Your task to perform on an android device: uninstall "Firefox Browser" Image 0: 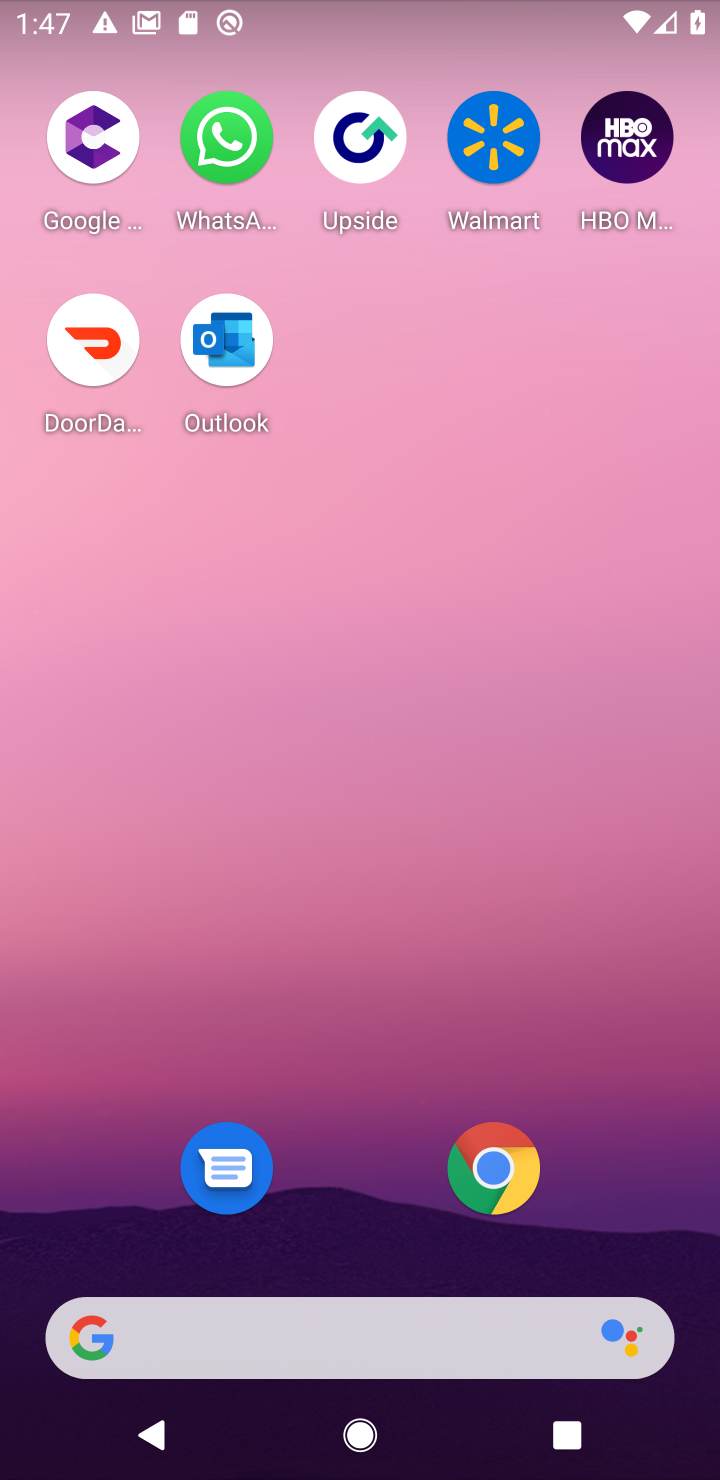
Step 0: drag from (243, 1322) to (322, 202)
Your task to perform on an android device: uninstall "Firefox Browser" Image 1: 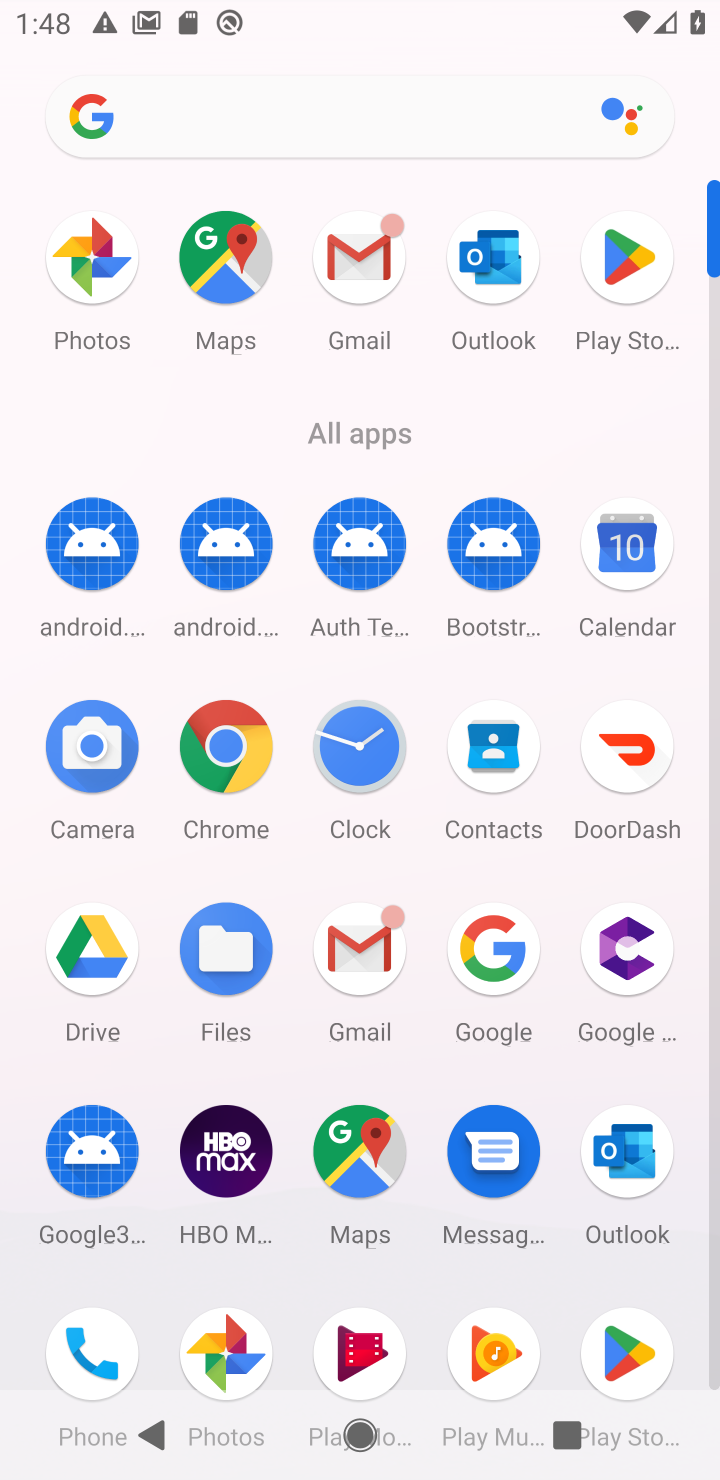
Step 1: click (626, 271)
Your task to perform on an android device: uninstall "Firefox Browser" Image 2: 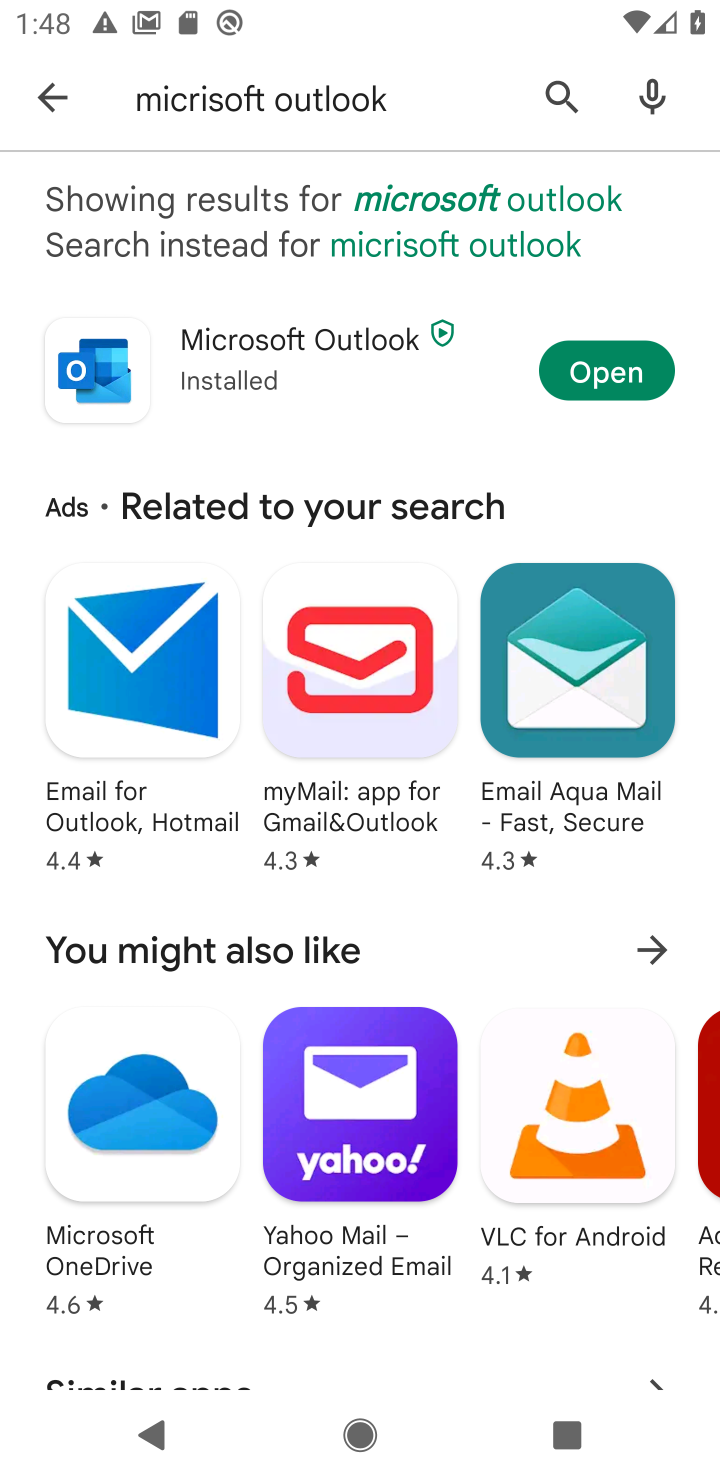
Step 2: press back button
Your task to perform on an android device: uninstall "Firefox Browser" Image 3: 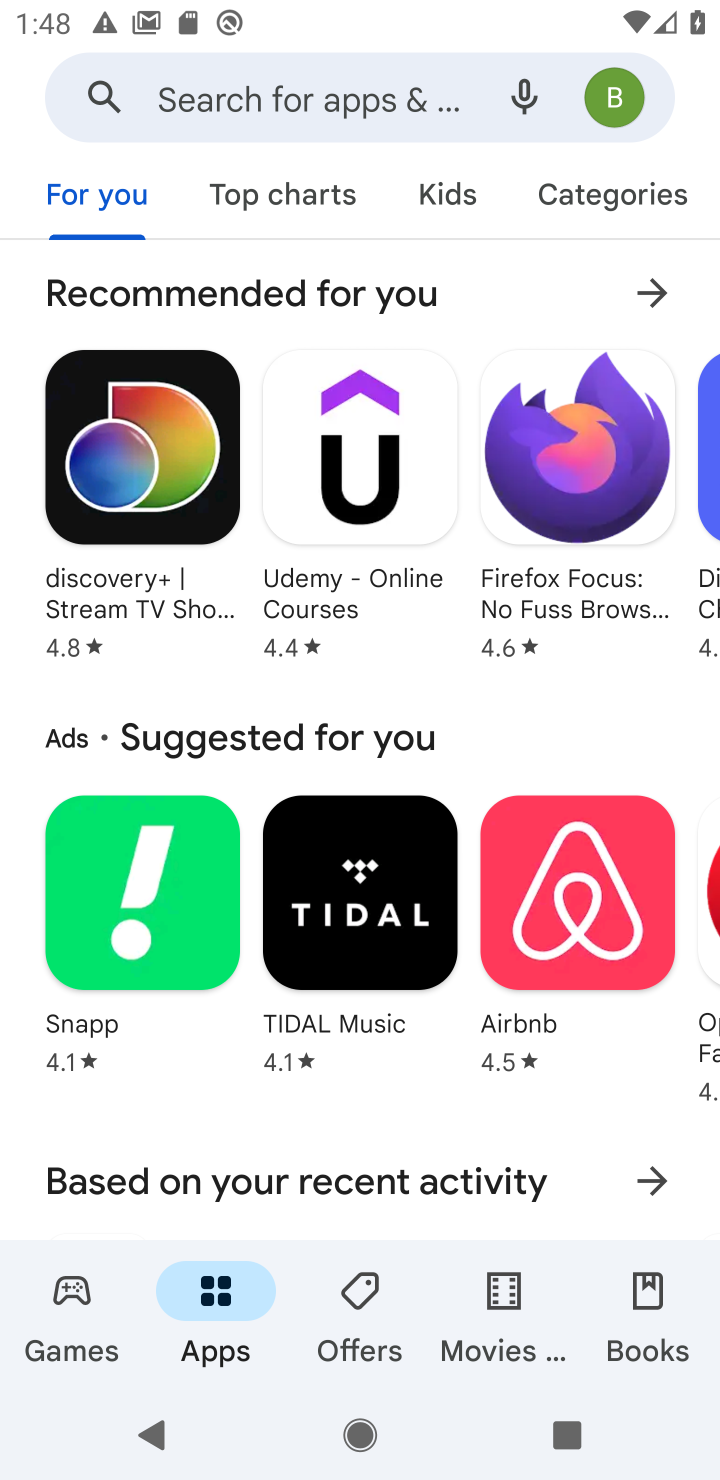
Step 3: click (260, 104)
Your task to perform on an android device: uninstall "Firefox Browser" Image 4: 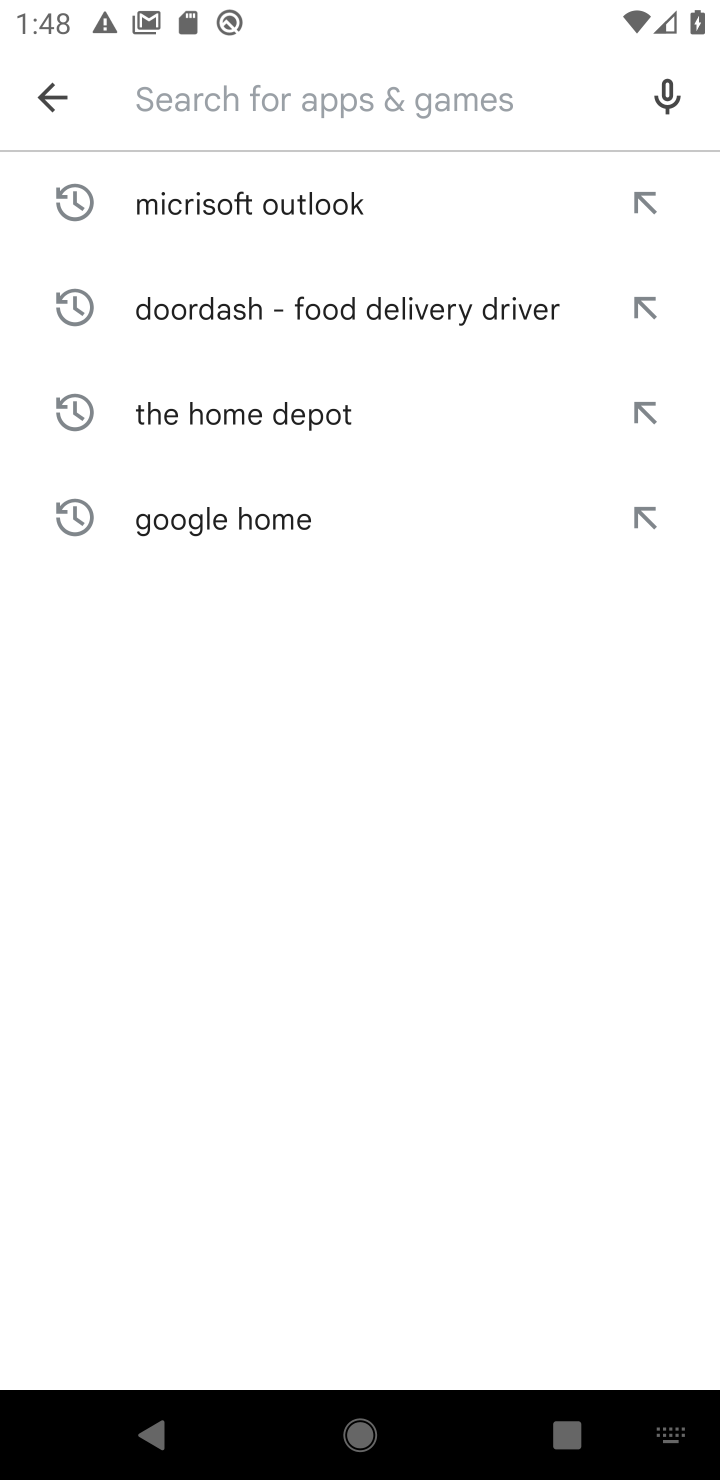
Step 4: type "Firebox Browser"
Your task to perform on an android device: uninstall "Firefox Browser" Image 5: 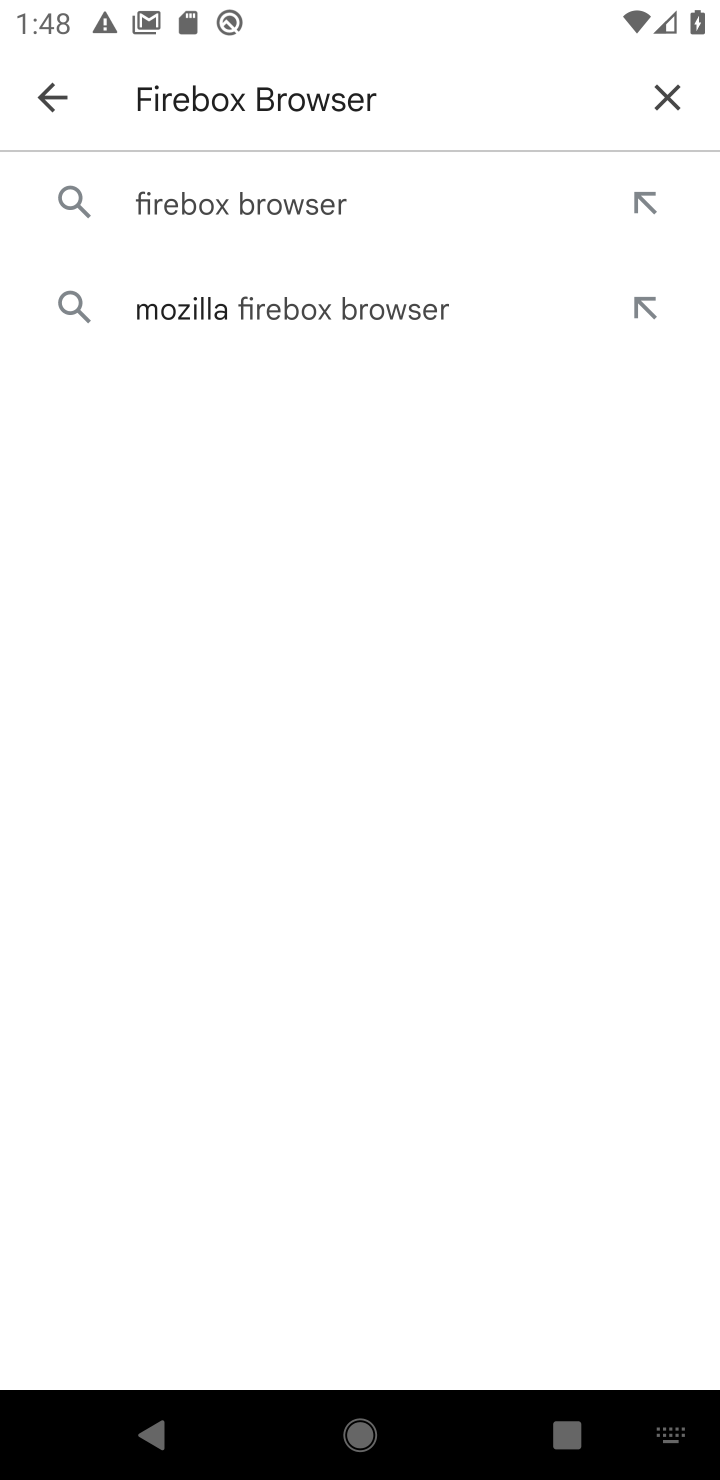
Step 5: click (328, 203)
Your task to perform on an android device: uninstall "Firefox Browser" Image 6: 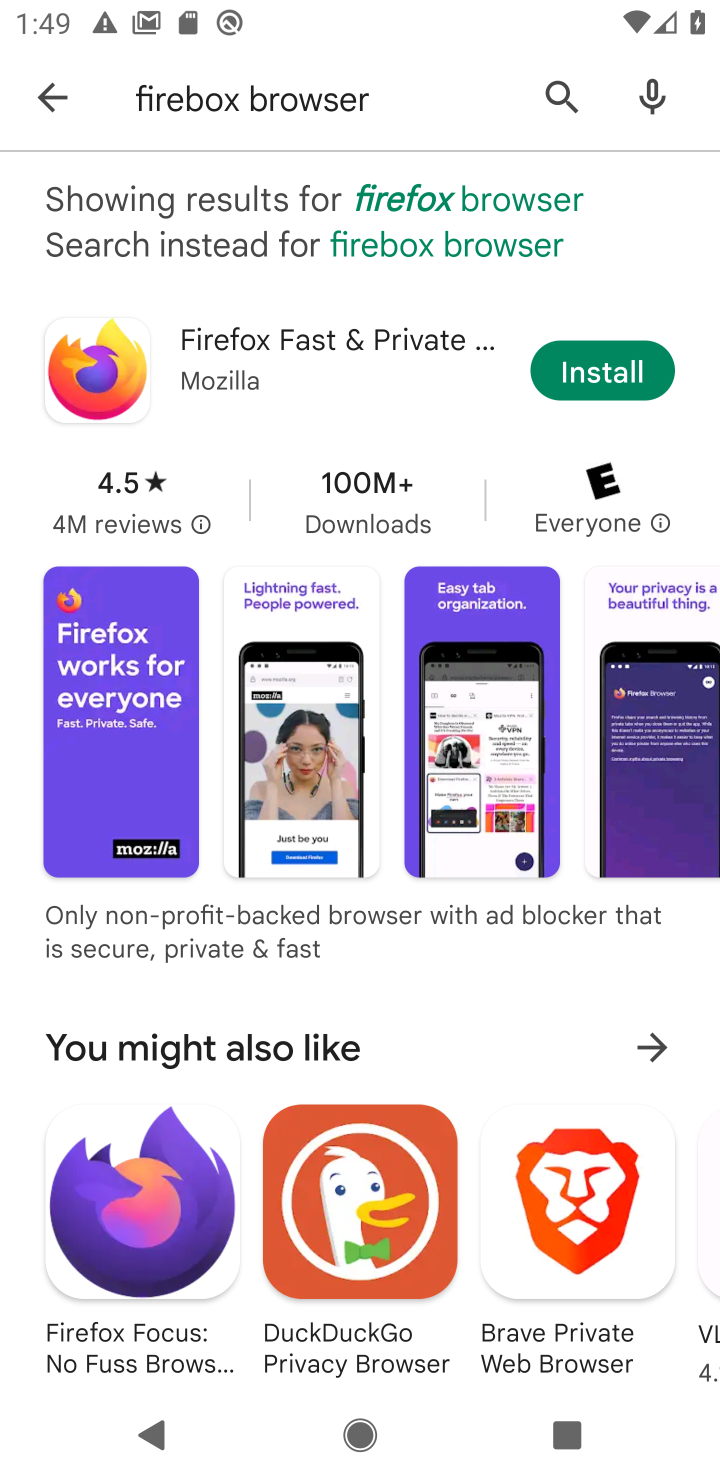
Step 6: task complete